Your task to perform on an android device: find snoozed emails in the gmail app Image 0: 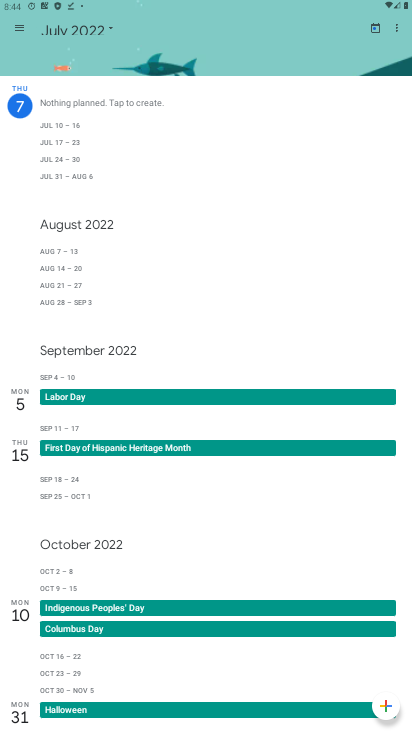
Step 0: press home button
Your task to perform on an android device: find snoozed emails in the gmail app Image 1: 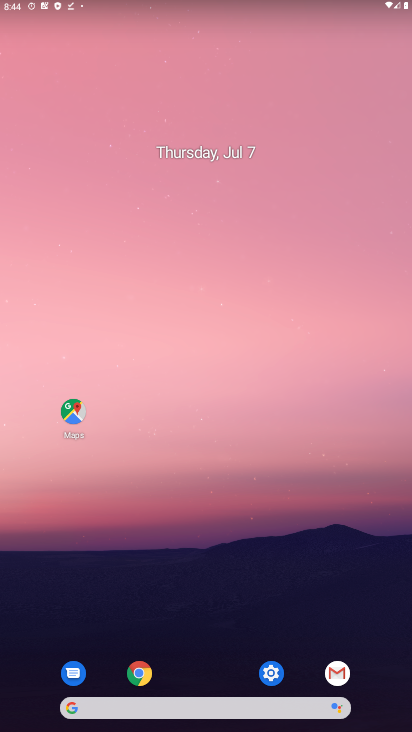
Step 1: drag from (222, 728) to (137, 211)
Your task to perform on an android device: find snoozed emails in the gmail app Image 2: 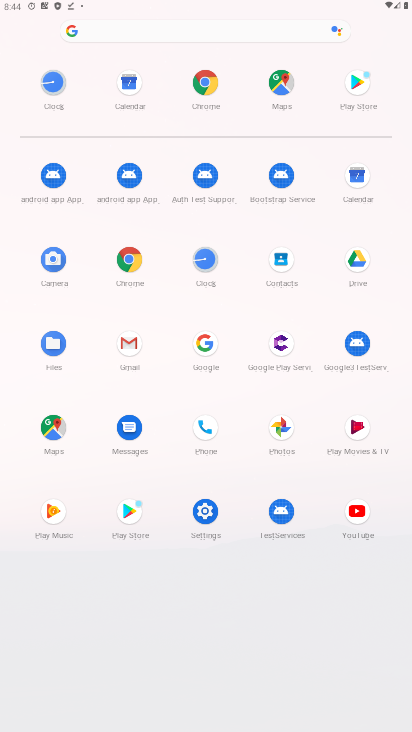
Step 2: click (136, 352)
Your task to perform on an android device: find snoozed emails in the gmail app Image 3: 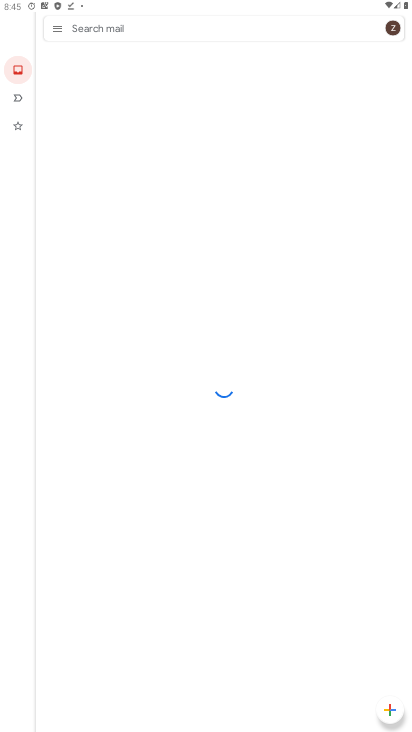
Step 3: click (54, 33)
Your task to perform on an android device: find snoozed emails in the gmail app Image 4: 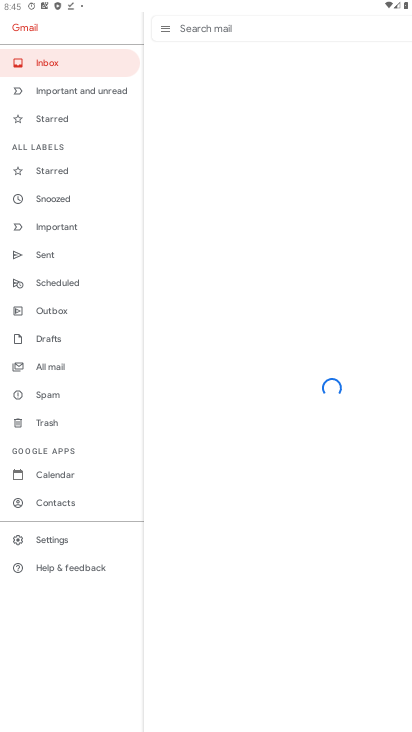
Step 4: click (58, 123)
Your task to perform on an android device: find snoozed emails in the gmail app Image 5: 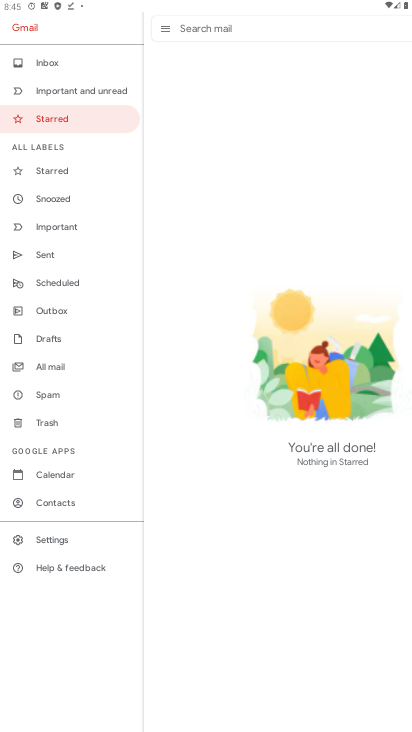
Step 5: click (57, 191)
Your task to perform on an android device: find snoozed emails in the gmail app Image 6: 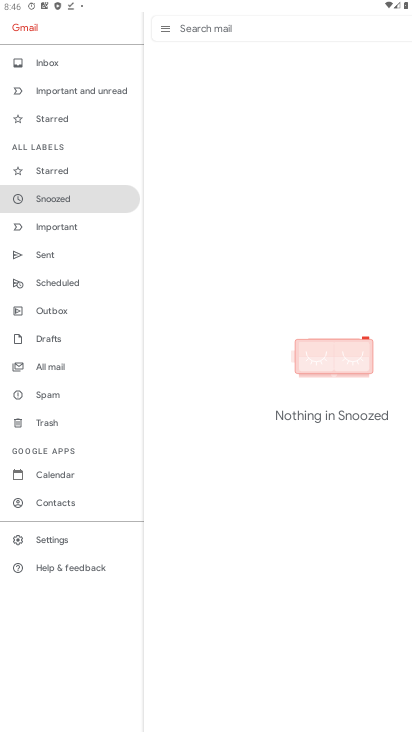
Step 6: task complete